Your task to perform on an android device: turn pop-ups on in chrome Image 0: 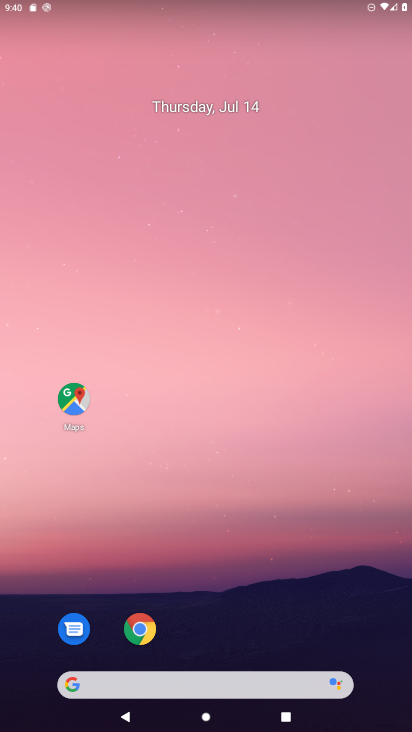
Step 0: drag from (265, 653) to (306, 134)
Your task to perform on an android device: turn pop-ups on in chrome Image 1: 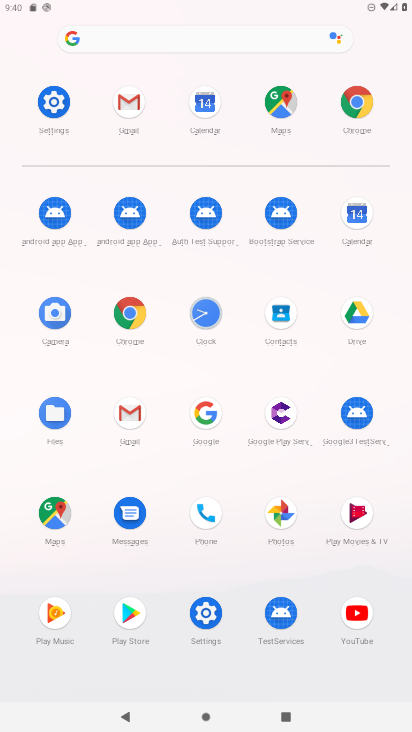
Step 1: click (128, 307)
Your task to perform on an android device: turn pop-ups on in chrome Image 2: 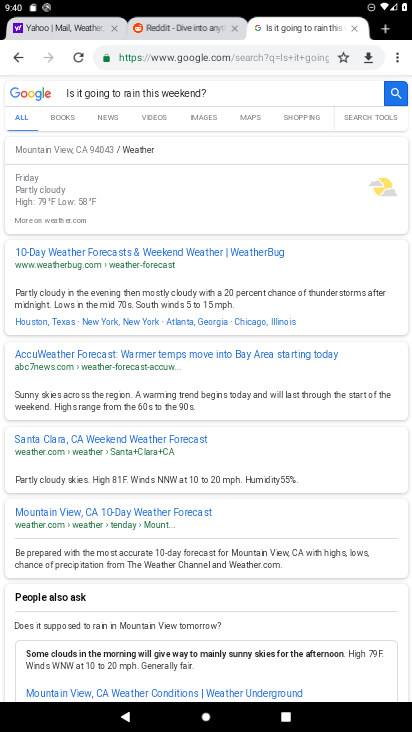
Step 2: drag from (397, 55) to (279, 359)
Your task to perform on an android device: turn pop-ups on in chrome Image 3: 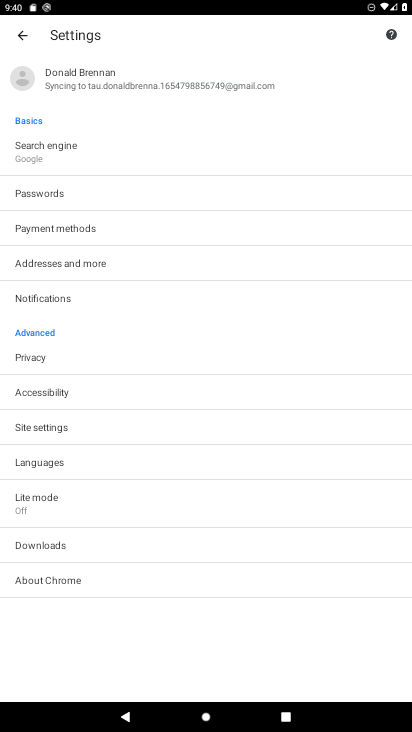
Step 3: click (45, 418)
Your task to perform on an android device: turn pop-ups on in chrome Image 4: 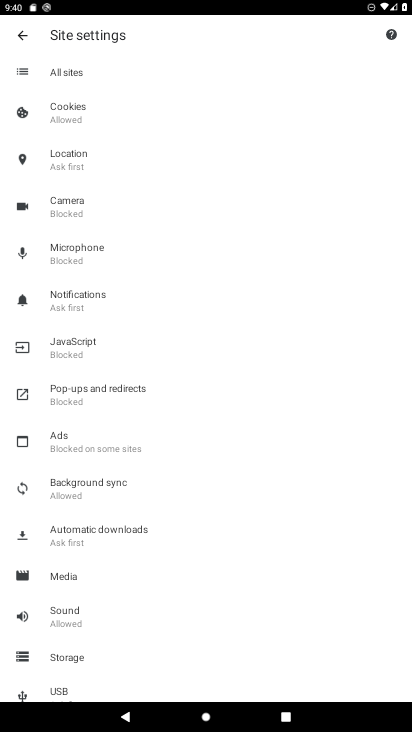
Step 4: click (121, 375)
Your task to perform on an android device: turn pop-ups on in chrome Image 5: 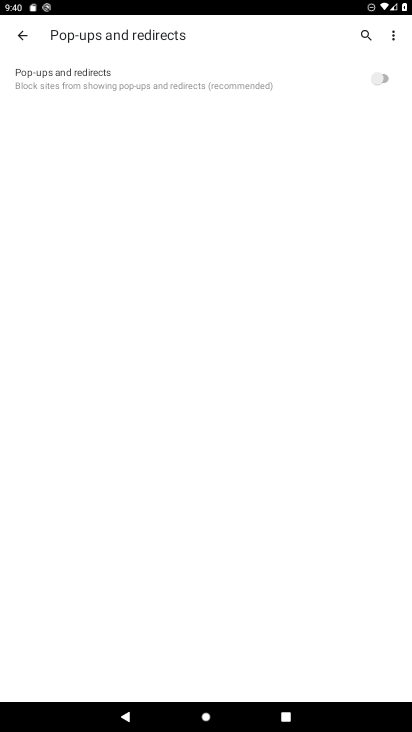
Step 5: click (349, 71)
Your task to perform on an android device: turn pop-ups on in chrome Image 6: 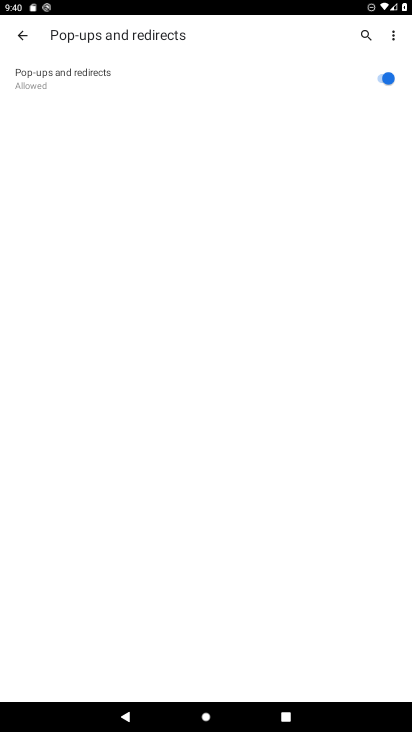
Step 6: task complete